Your task to perform on an android device: open app "Indeed Job Search" Image 0: 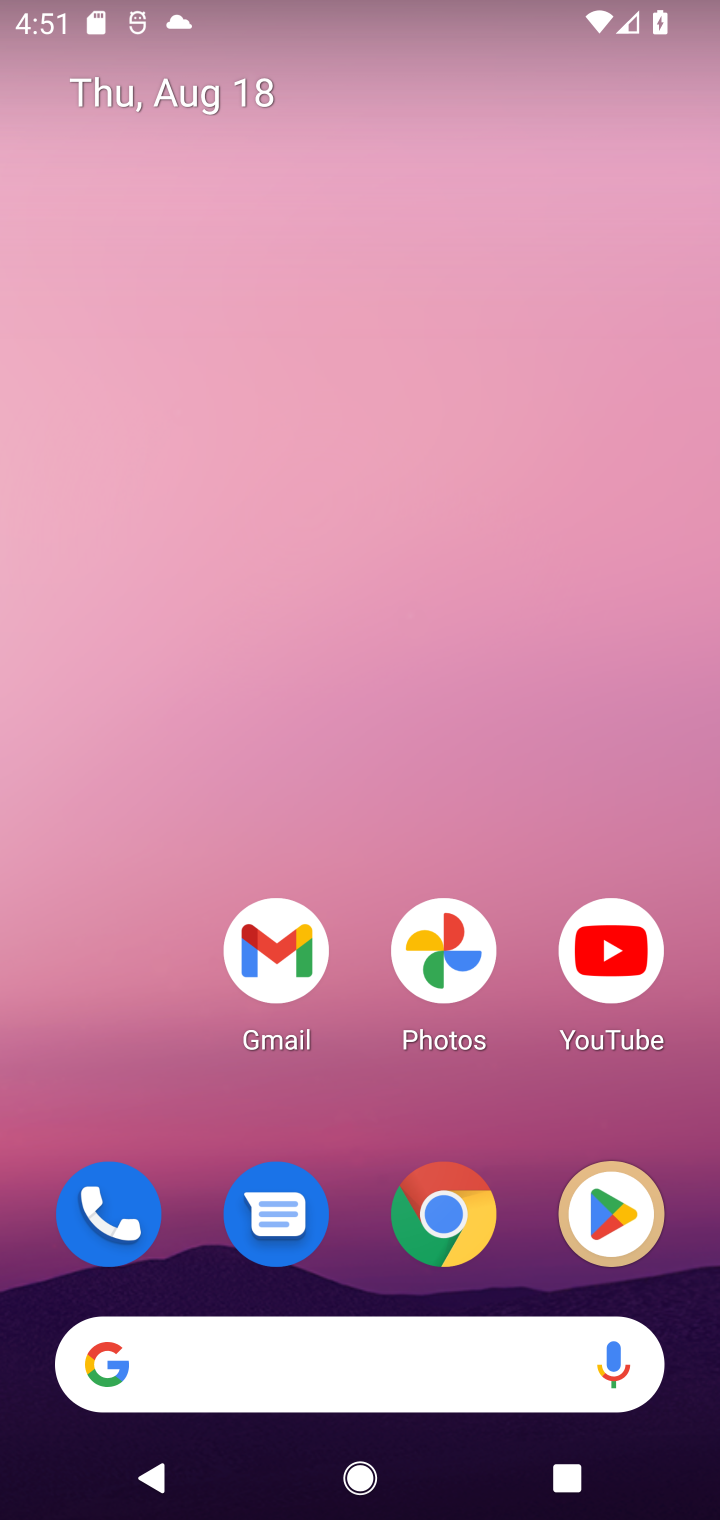
Step 0: click (614, 1204)
Your task to perform on an android device: open app "Indeed Job Search" Image 1: 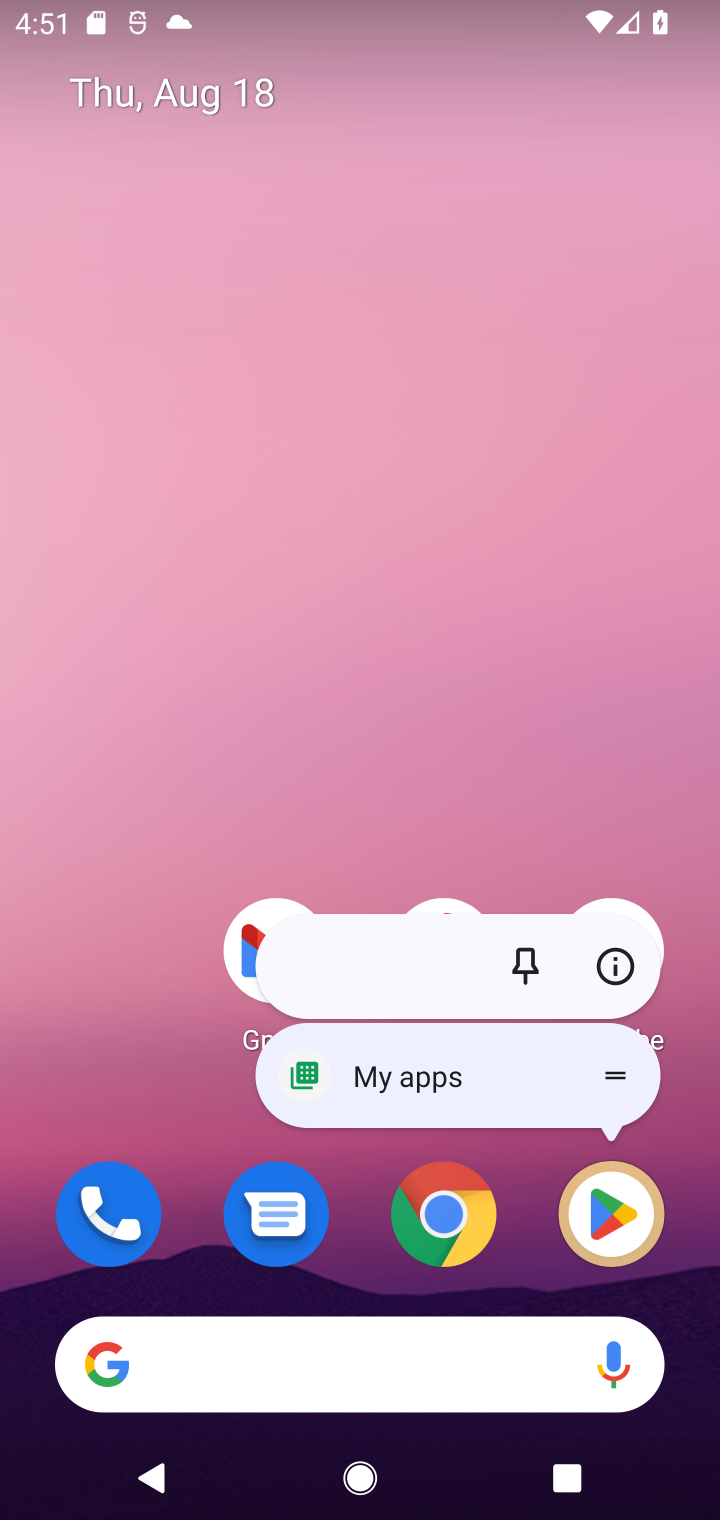
Step 1: click (614, 1204)
Your task to perform on an android device: open app "Indeed Job Search" Image 2: 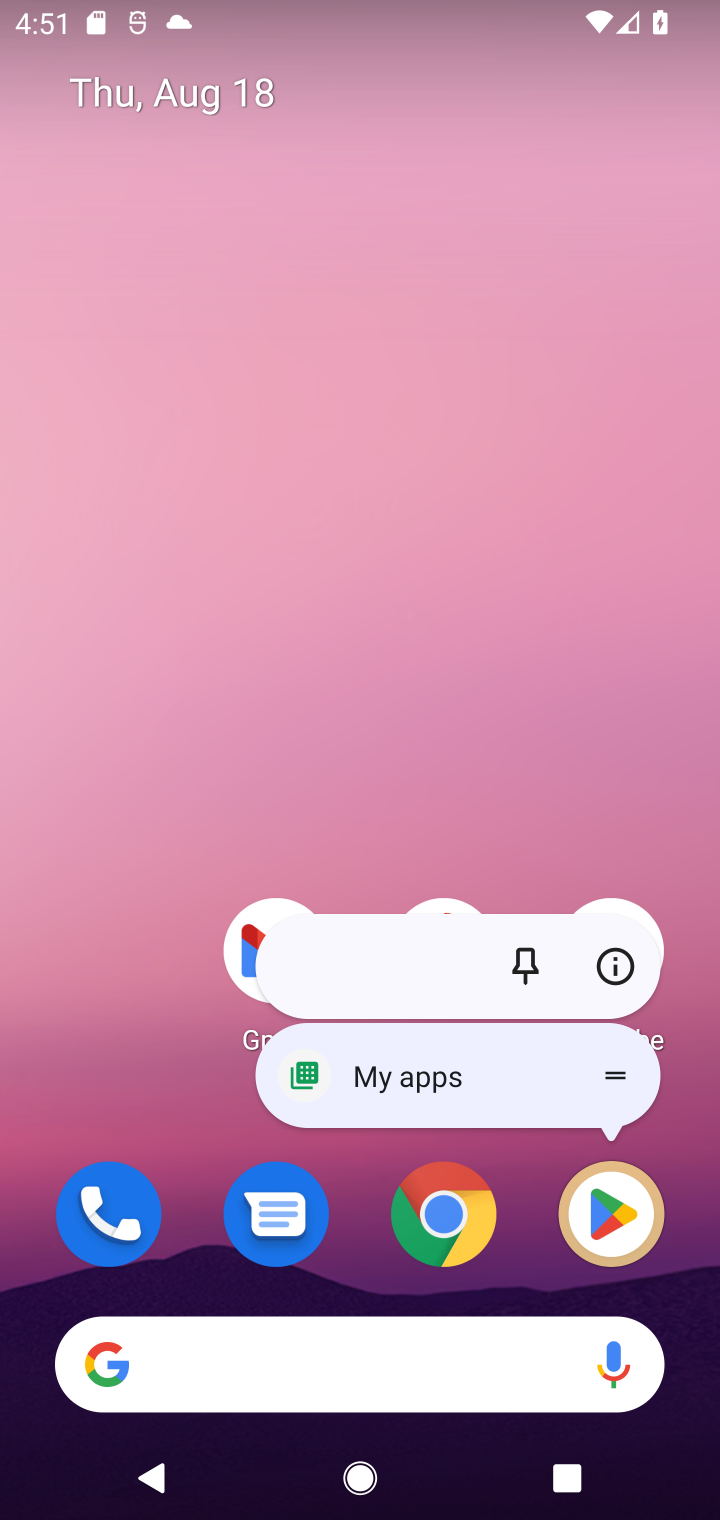
Step 2: click (614, 1204)
Your task to perform on an android device: open app "Indeed Job Search" Image 3: 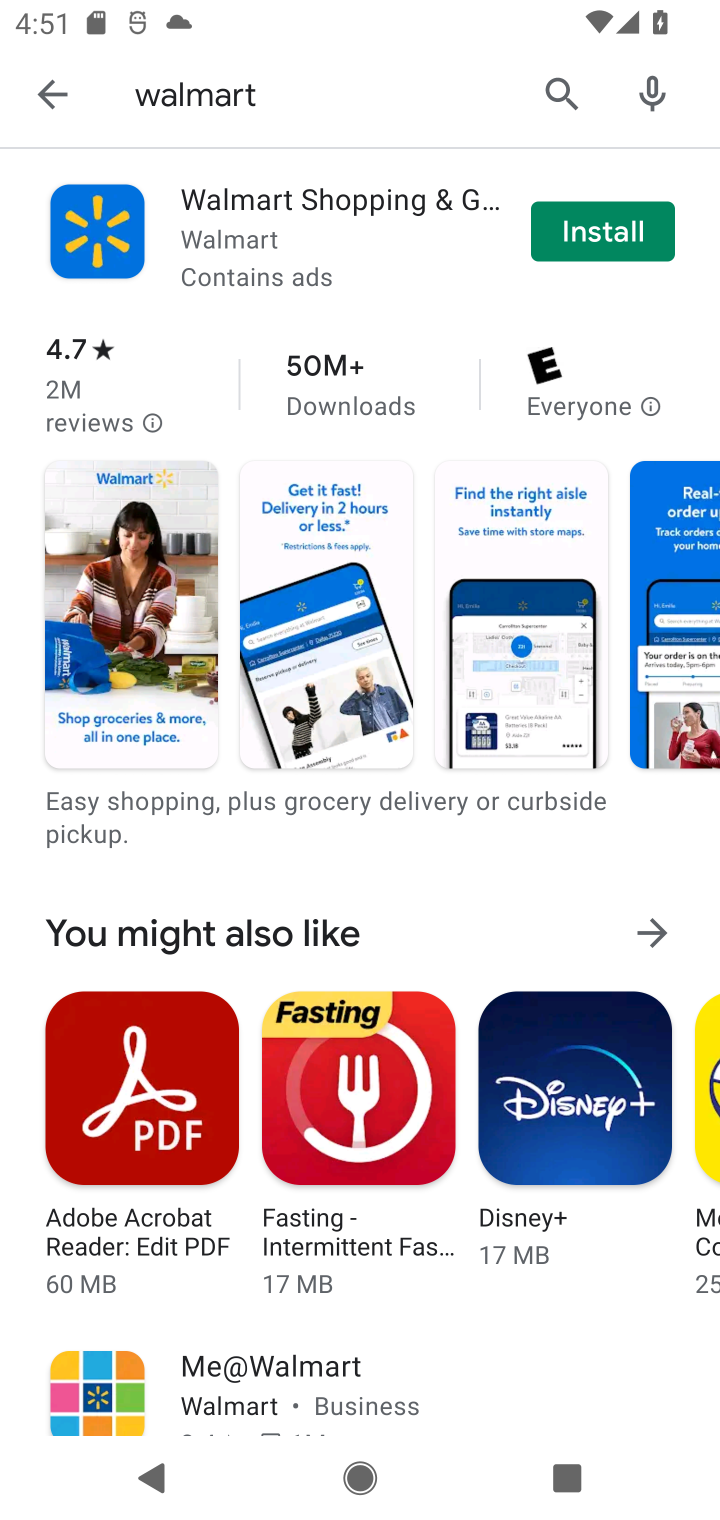
Step 3: click (274, 104)
Your task to perform on an android device: open app "Indeed Job Search" Image 4: 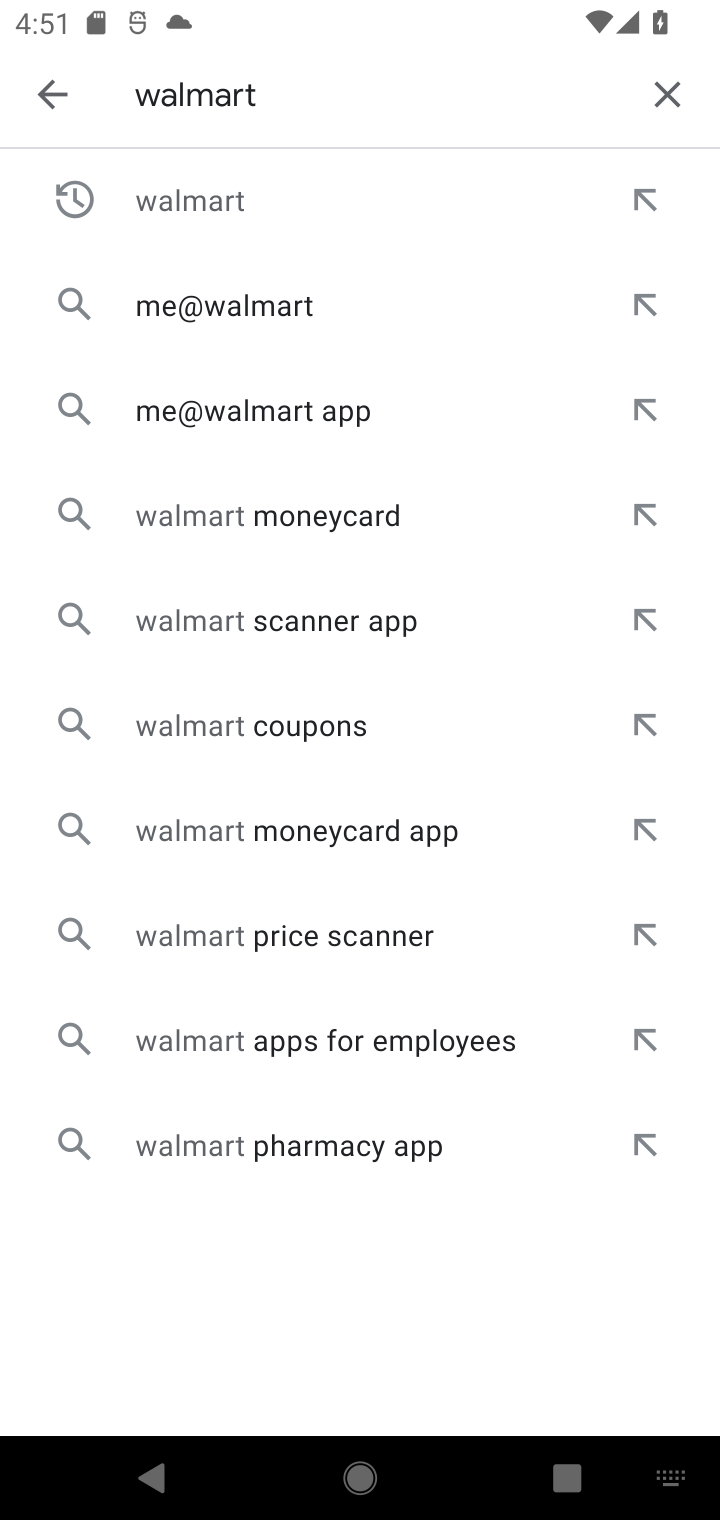
Step 4: click (670, 86)
Your task to perform on an android device: open app "Indeed Job Search" Image 5: 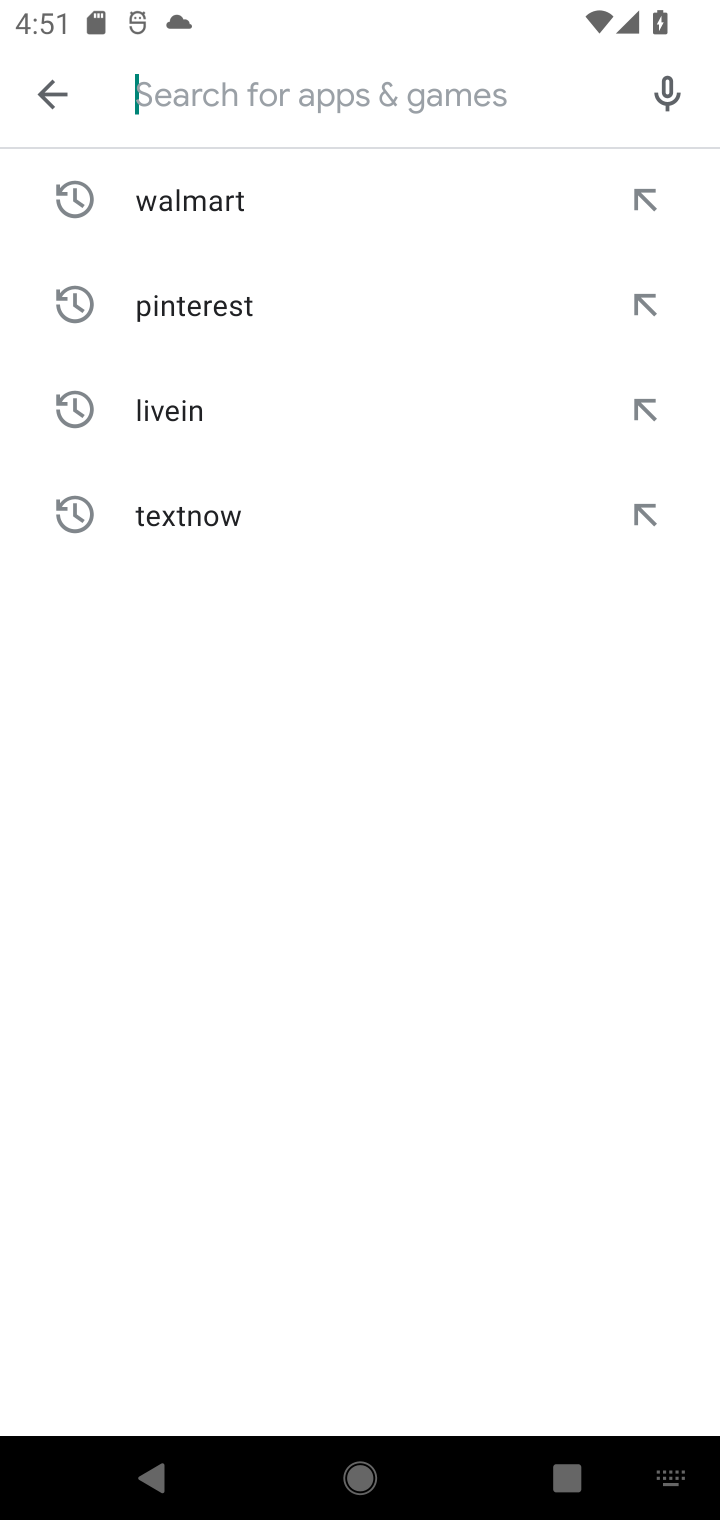
Step 5: type "indeed job search"
Your task to perform on an android device: open app "Indeed Job Search" Image 6: 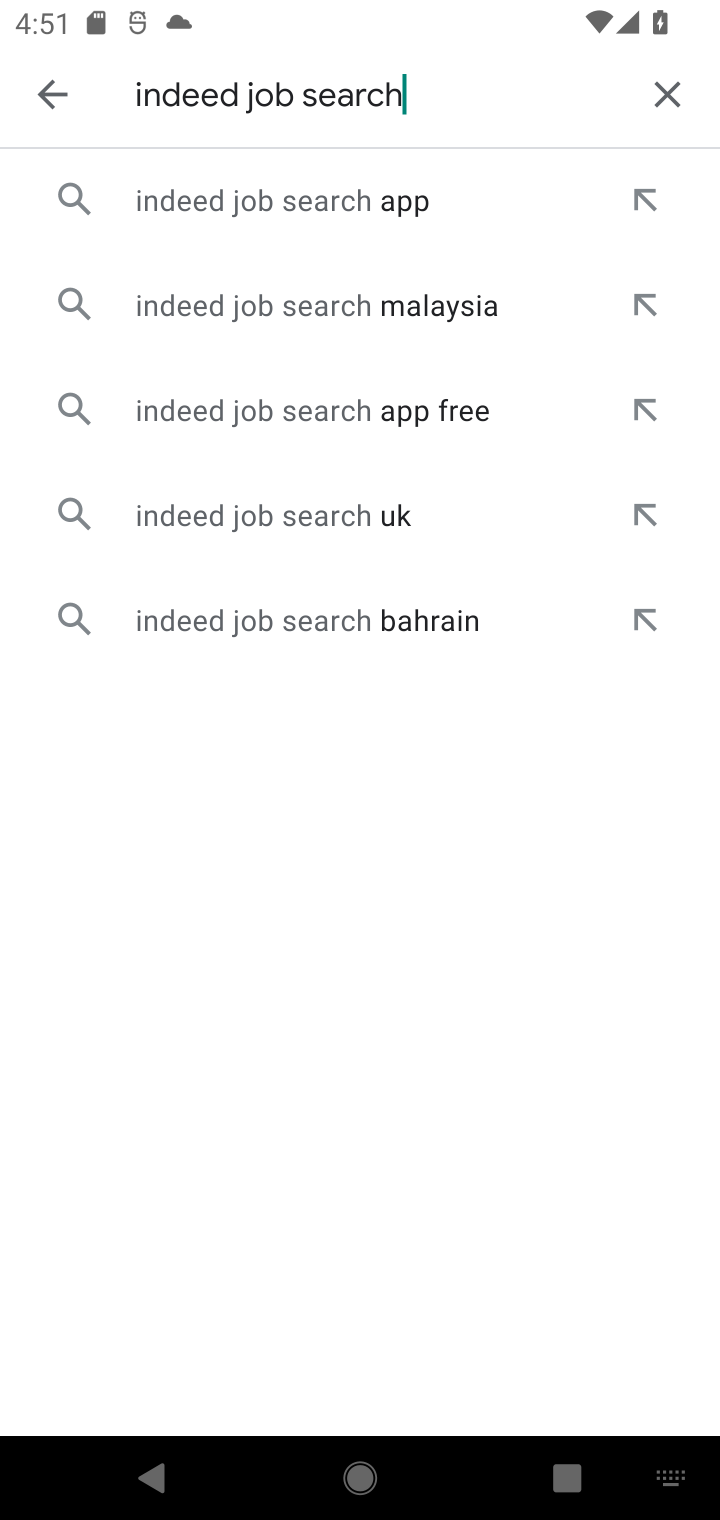
Step 6: click (366, 187)
Your task to perform on an android device: open app "Indeed Job Search" Image 7: 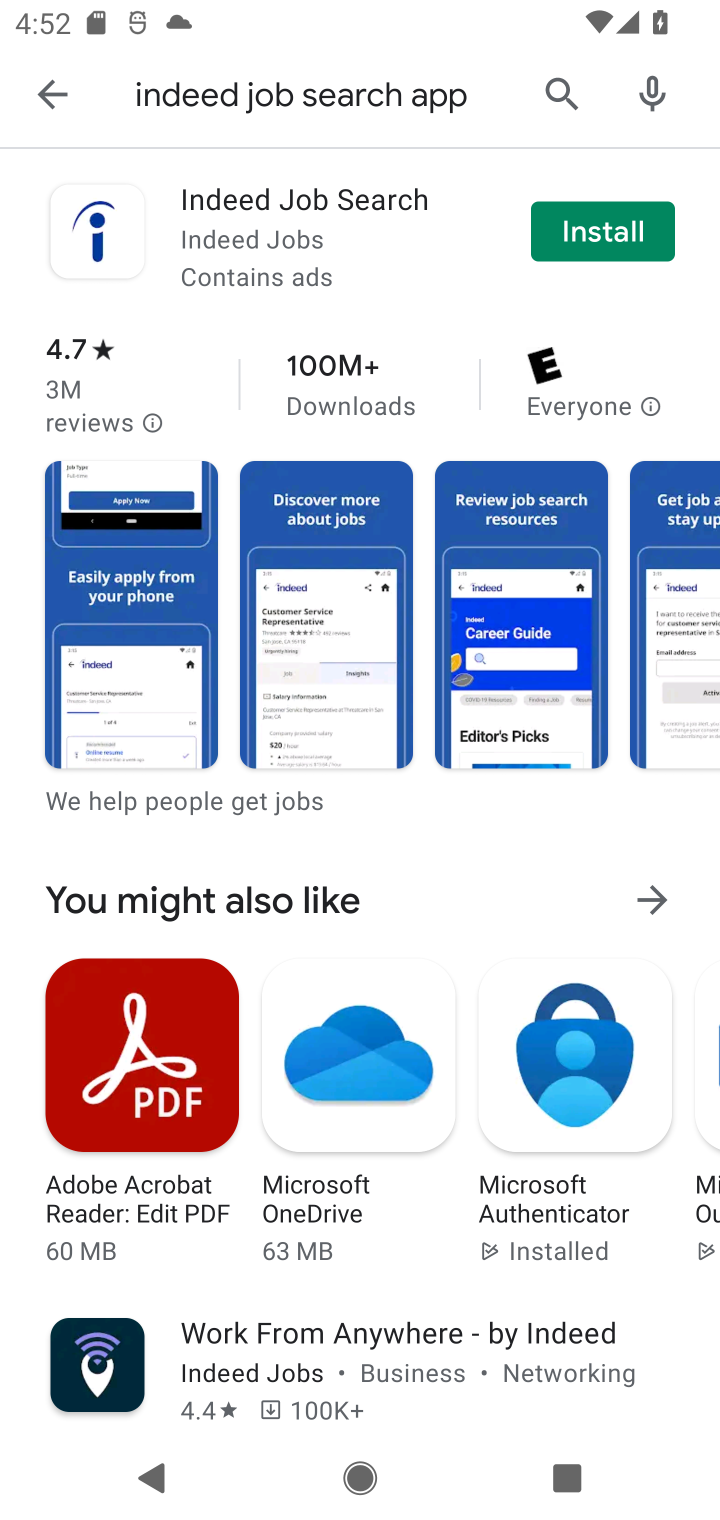
Step 7: task complete